Your task to perform on an android device: Go to CNN.com Image 0: 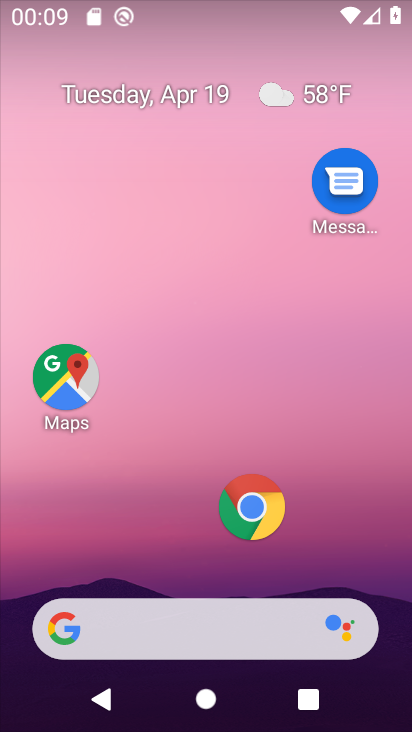
Step 0: click (233, 505)
Your task to perform on an android device: Go to CNN.com Image 1: 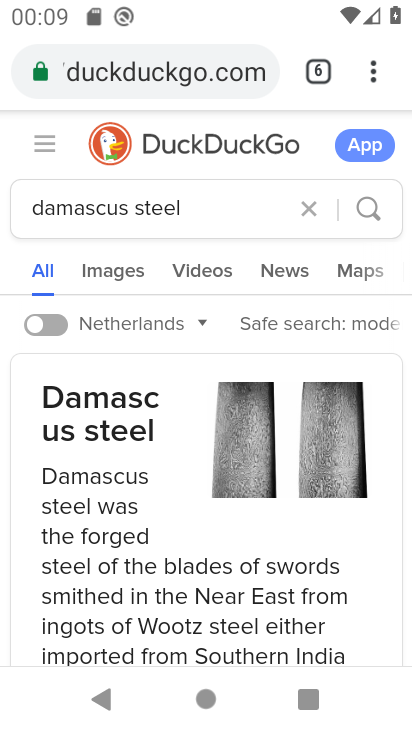
Step 1: click (169, 81)
Your task to perform on an android device: Go to CNN.com Image 2: 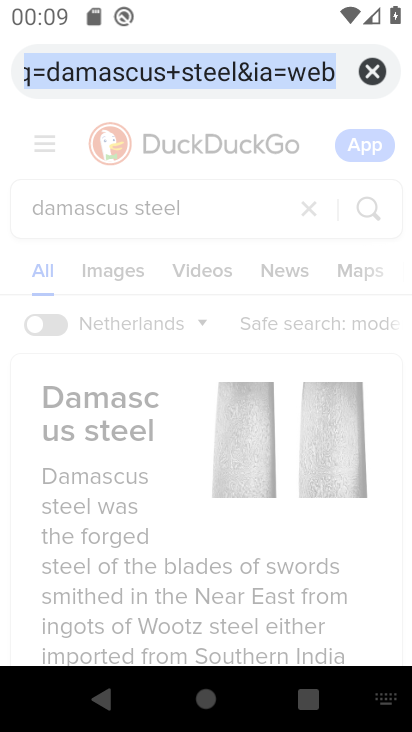
Step 2: type "CNN.com"
Your task to perform on an android device: Go to CNN.com Image 3: 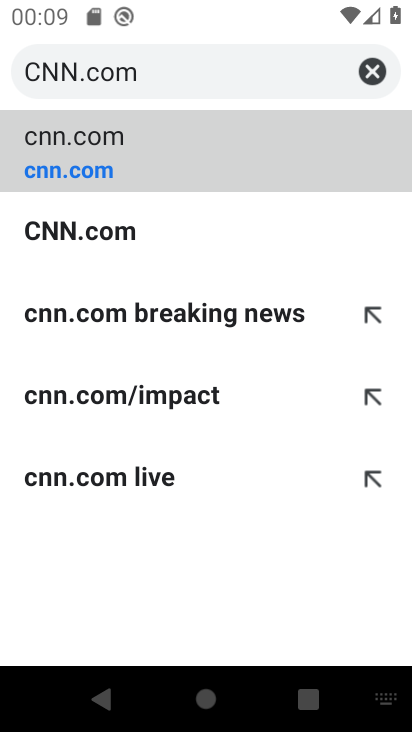
Step 3: click (181, 161)
Your task to perform on an android device: Go to CNN.com Image 4: 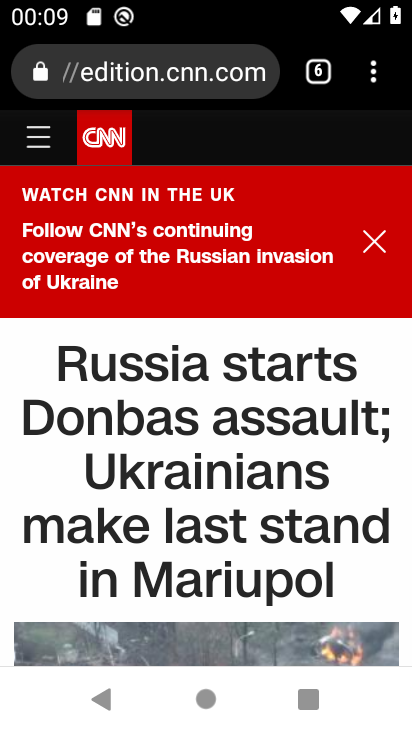
Step 4: task complete